Your task to perform on an android device: What's on my calendar tomorrow? Image 0: 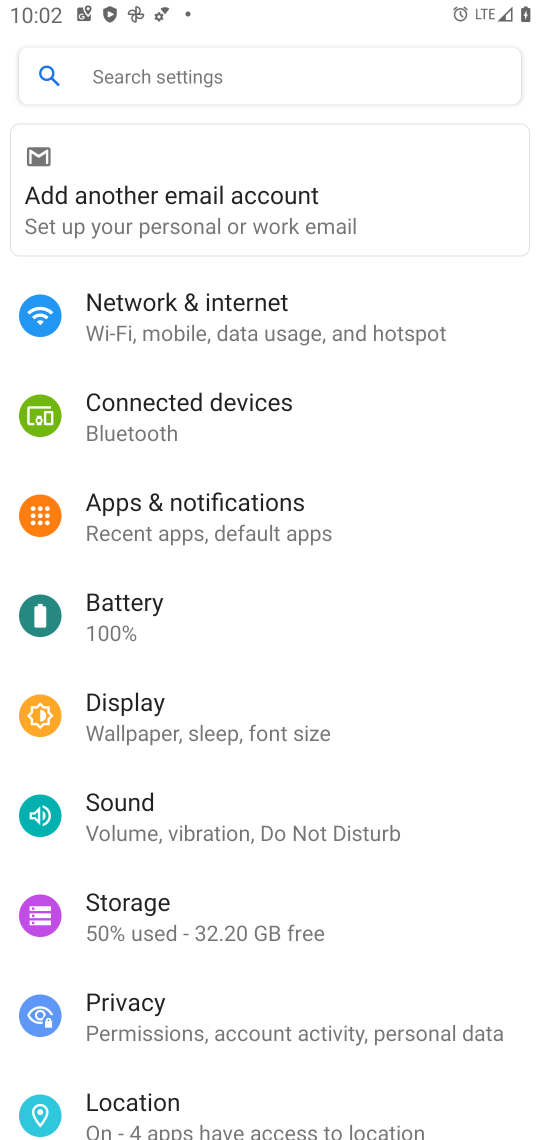
Step 0: press home button
Your task to perform on an android device: What's on my calendar tomorrow? Image 1: 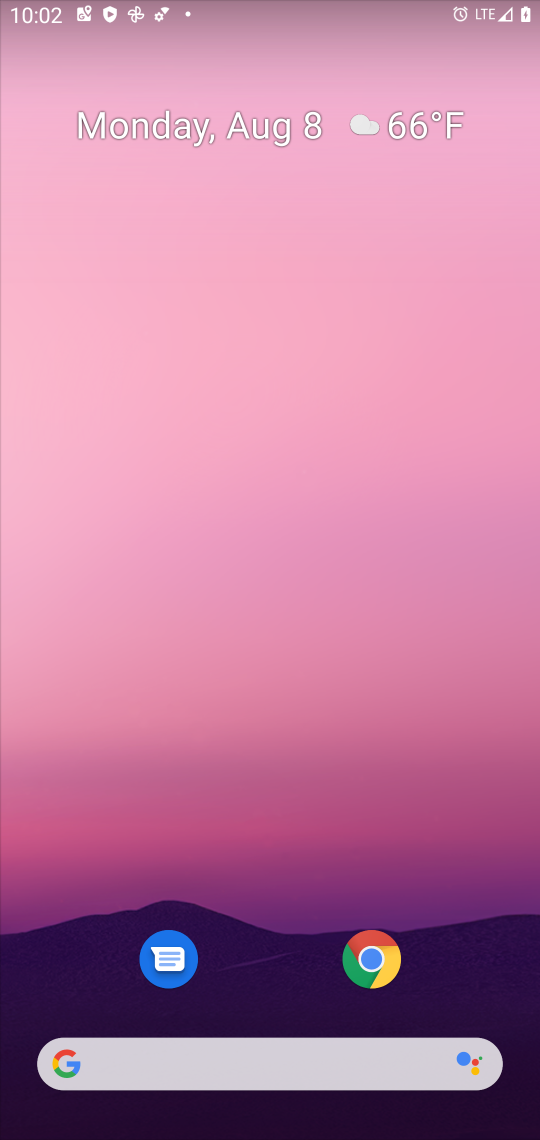
Step 1: drag from (486, 986) to (261, 162)
Your task to perform on an android device: What's on my calendar tomorrow? Image 2: 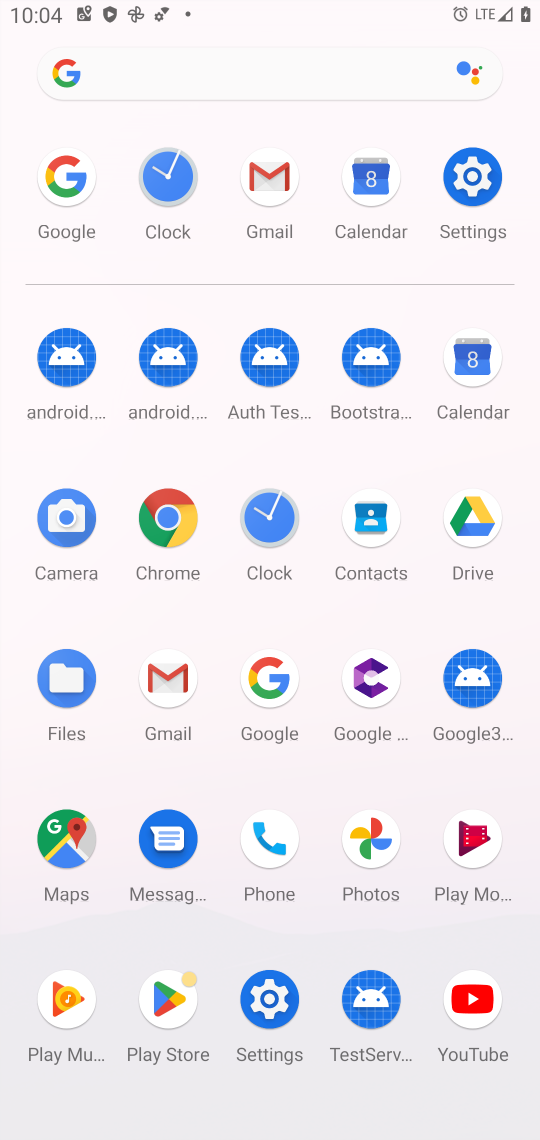
Step 2: click (483, 355)
Your task to perform on an android device: What's on my calendar tomorrow? Image 3: 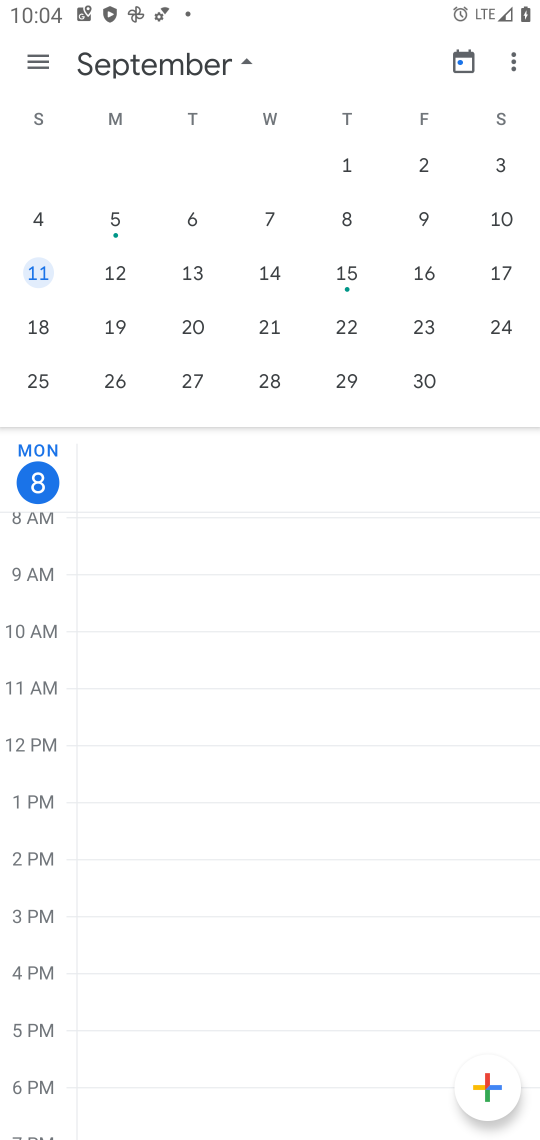
Step 3: task complete